Your task to perform on an android device: Open Wikipedia Image 0: 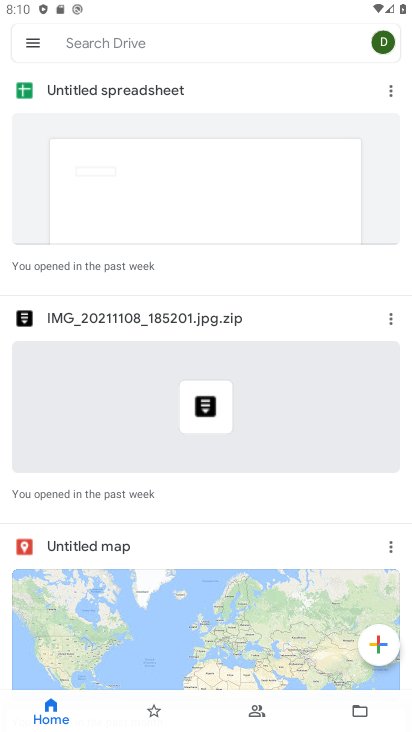
Step 0: press home button
Your task to perform on an android device: Open Wikipedia Image 1: 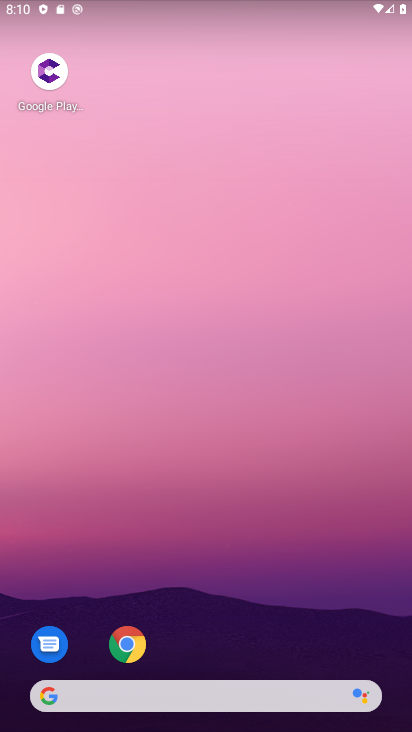
Step 1: click (134, 648)
Your task to perform on an android device: Open Wikipedia Image 2: 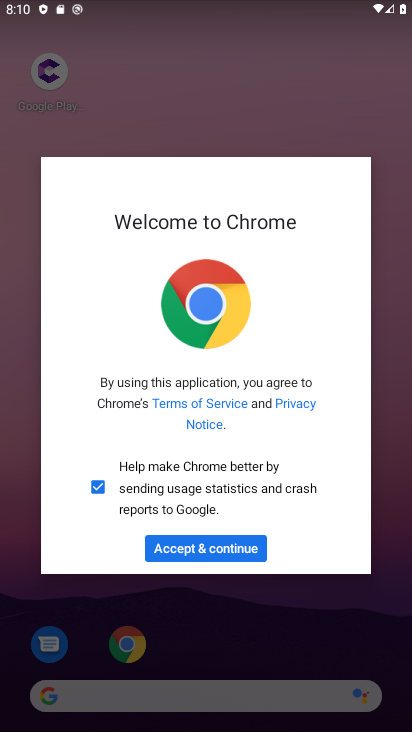
Step 2: click (211, 558)
Your task to perform on an android device: Open Wikipedia Image 3: 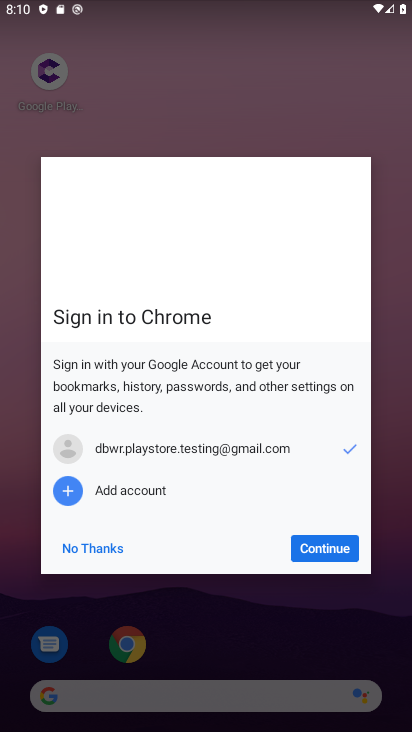
Step 3: click (320, 548)
Your task to perform on an android device: Open Wikipedia Image 4: 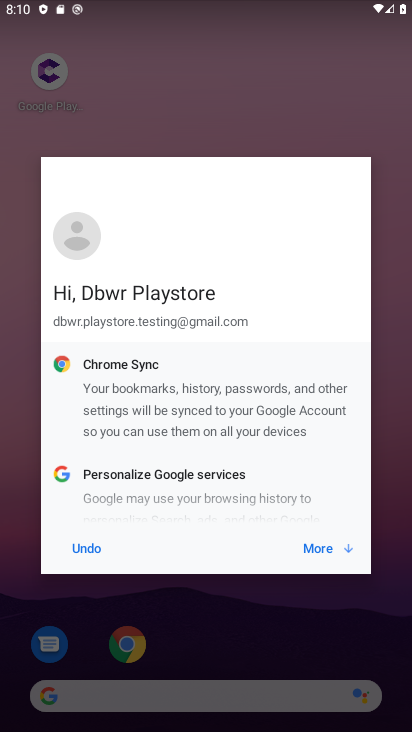
Step 4: click (320, 548)
Your task to perform on an android device: Open Wikipedia Image 5: 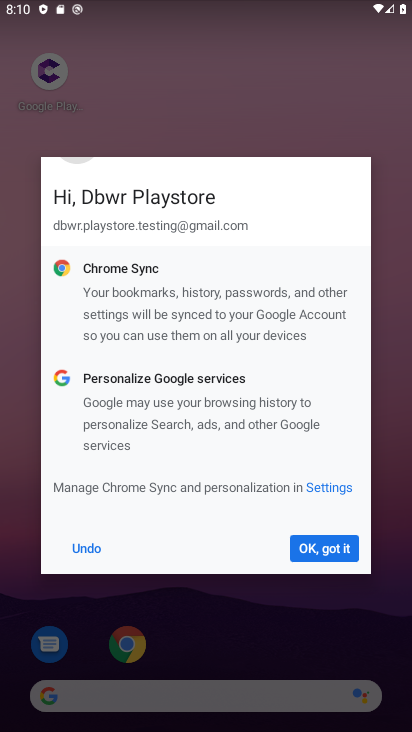
Step 5: click (320, 548)
Your task to perform on an android device: Open Wikipedia Image 6: 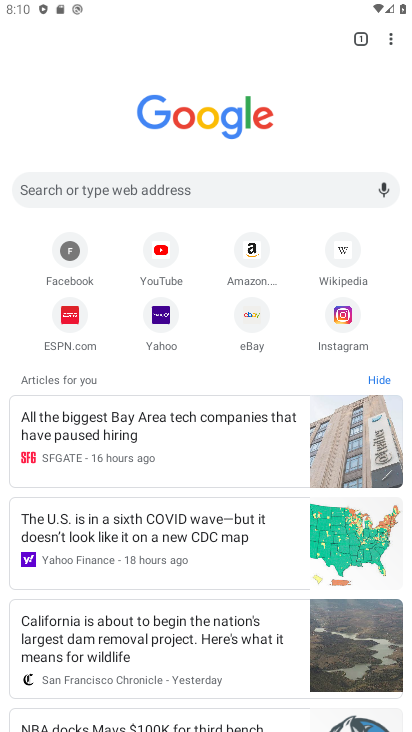
Step 6: click (333, 252)
Your task to perform on an android device: Open Wikipedia Image 7: 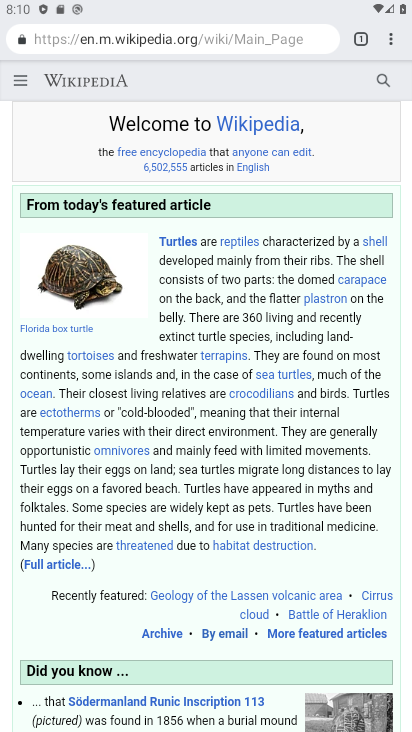
Step 7: task complete